Your task to perform on an android device: Turn on the flashlight Image 0: 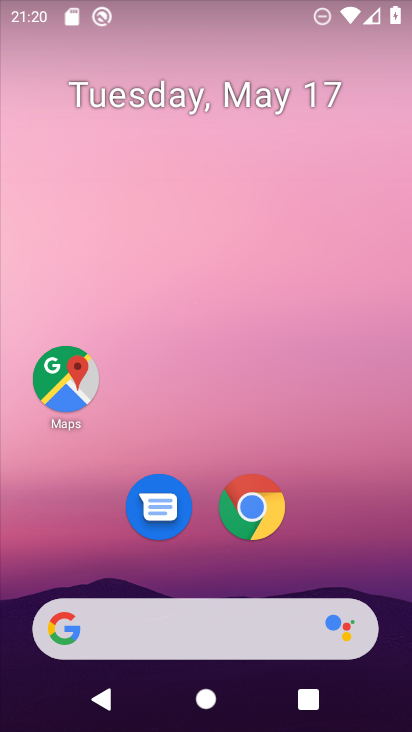
Step 0: drag from (203, 12) to (334, 705)
Your task to perform on an android device: Turn on the flashlight Image 1: 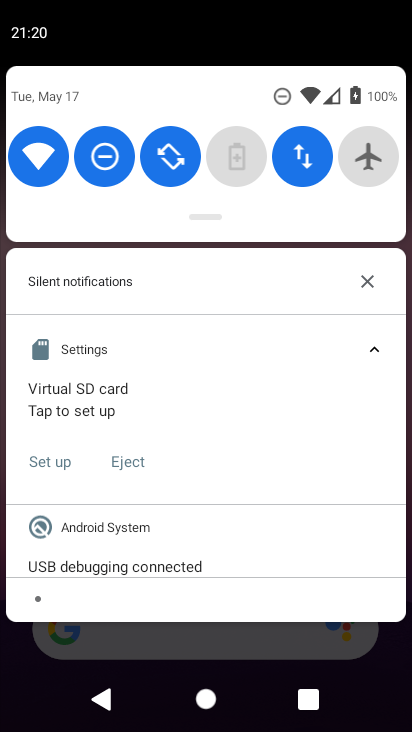
Step 1: task complete